Your task to perform on an android device: turn on javascript in the chrome app Image 0: 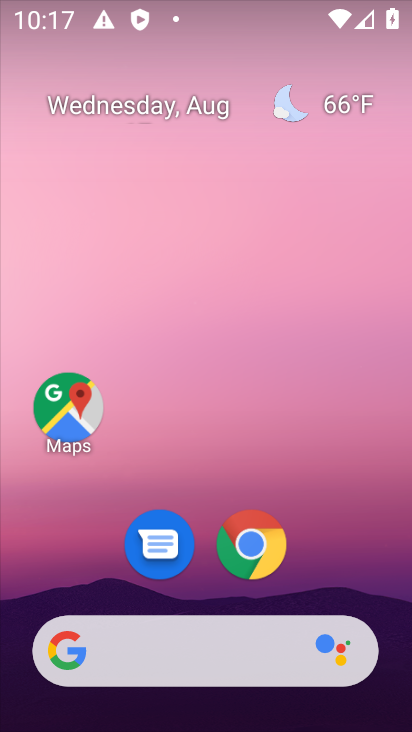
Step 0: drag from (229, 472) to (276, 169)
Your task to perform on an android device: turn on javascript in the chrome app Image 1: 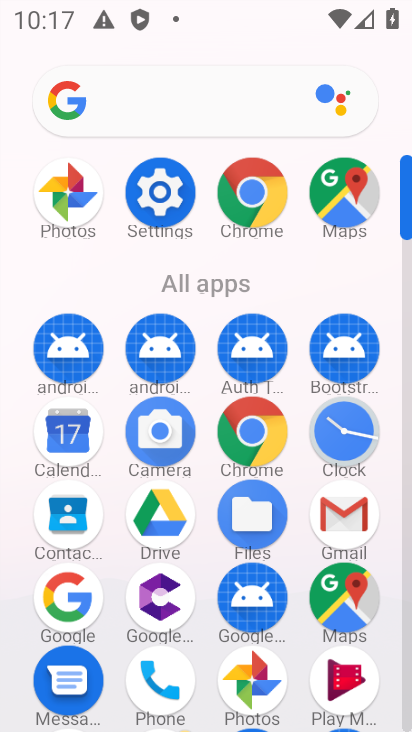
Step 1: task complete